Your task to perform on an android device: see sites visited before in the chrome app Image 0: 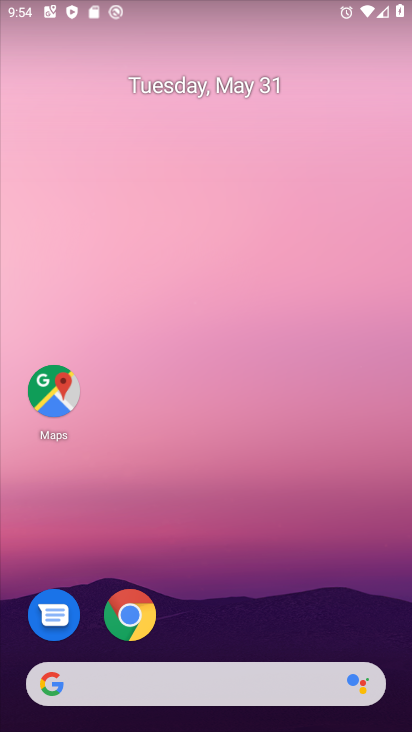
Step 0: drag from (290, 518) to (190, 11)
Your task to perform on an android device: see sites visited before in the chrome app Image 1: 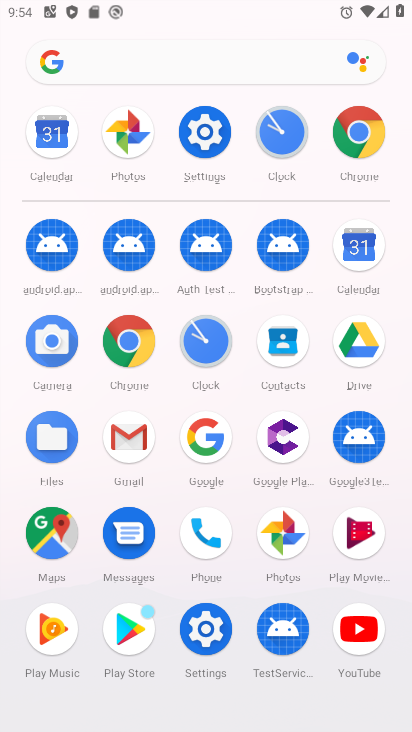
Step 1: click (351, 163)
Your task to perform on an android device: see sites visited before in the chrome app Image 2: 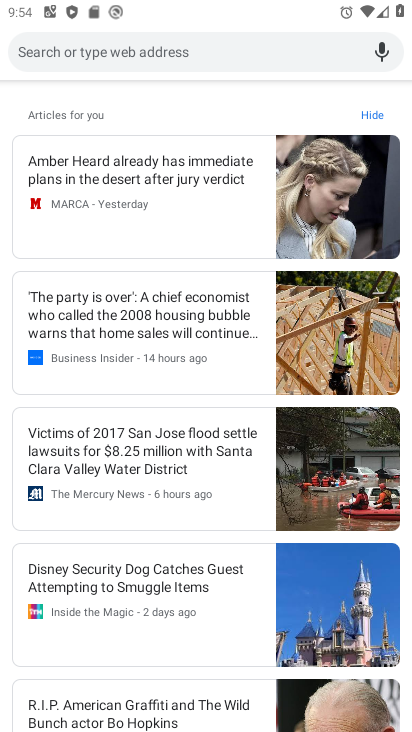
Step 2: task complete